Your task to perform on an android device: Go to Wikipedia Image 0: 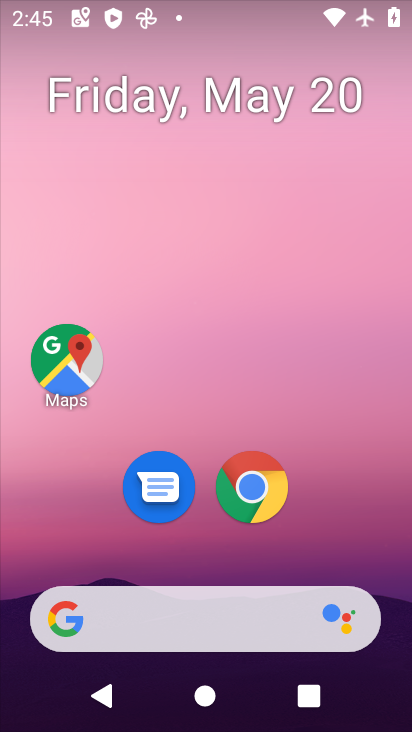
Step 0: click (257, 486)
Your task to perform on an android device: Go to Wikipedia Image 1: 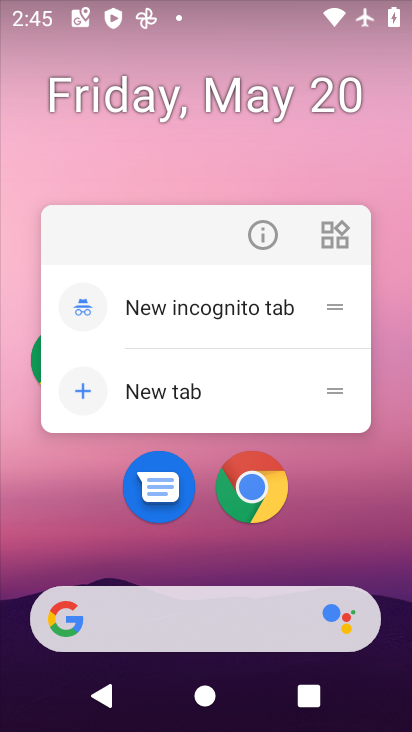
Step 1: click (257, 486)
Your task to perform on an android device: Go to Wikipedia Image 2: 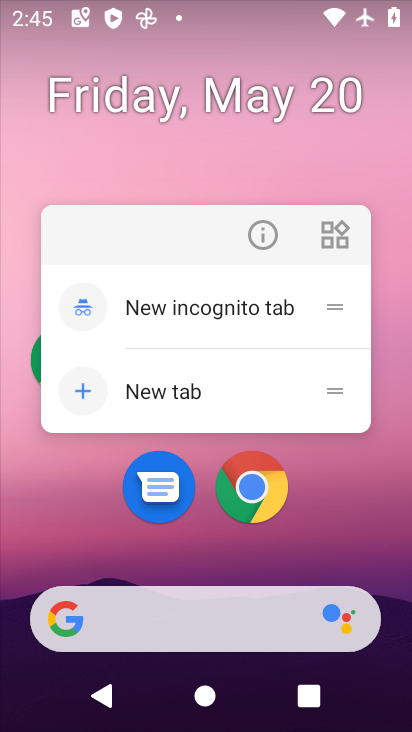
Step 2: click (257, 486)
Your task to perform on an android device: Go to Wikipedia Image 3: 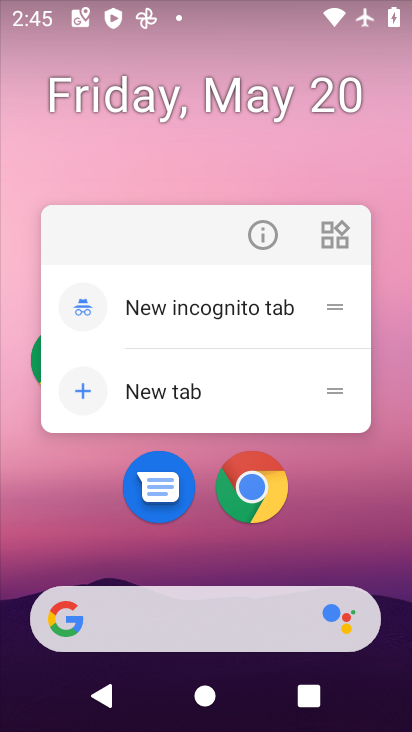
Step 3: click (257, 486)
Your task to perform on an android device: Go to Wikipedia Image 4: 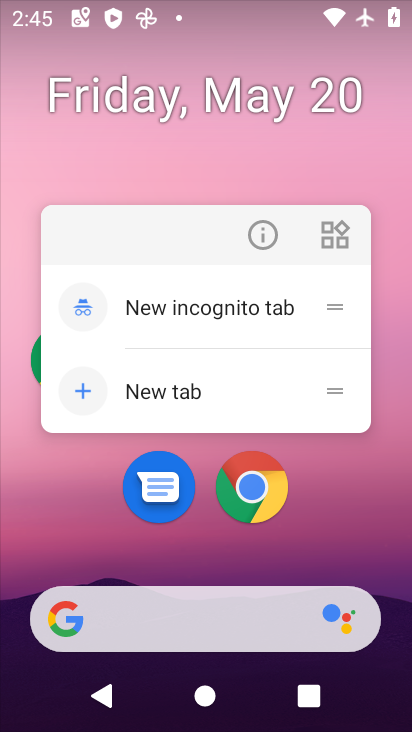
Step 4: click (257, 486)
Your task to perform on an android device: Go to Wikipedia Image 5: 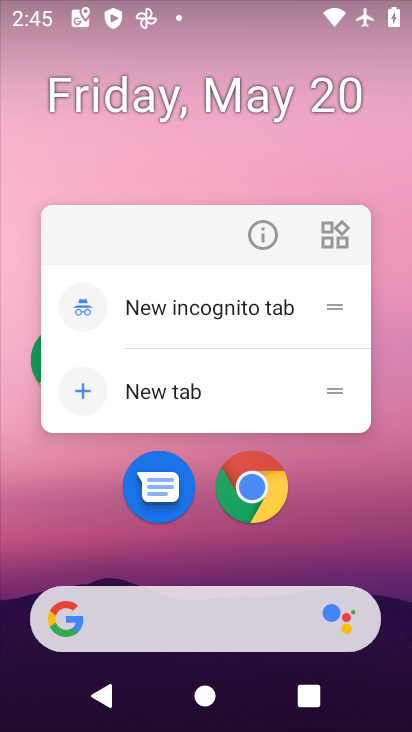
Step 5: click (257, 486)
Your task to perform on an android device: Go to Wikipedia Image 6: 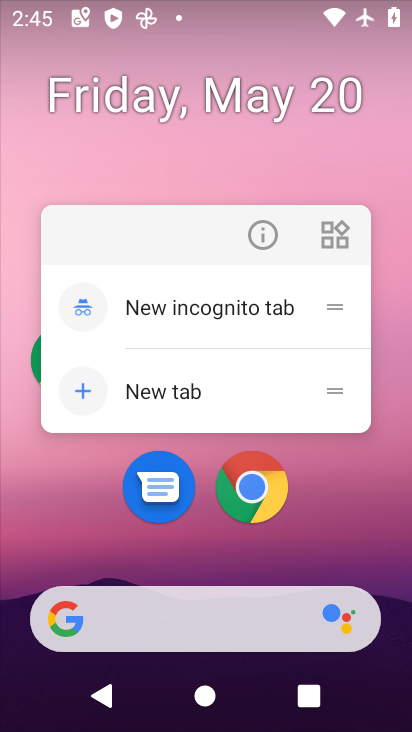
Step 6: click (257, 486)
Your task to perform on an android device: Go to Wikipedia Image 7: 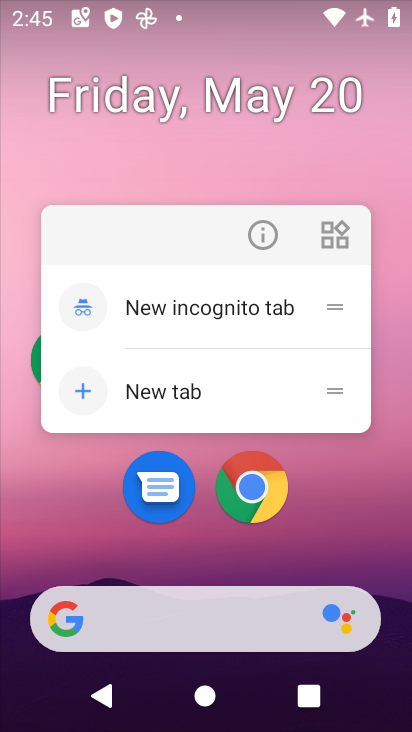
Step 7: click (257, 486)
Your task to perform on an android device: Go to Wikipedia Image 8: 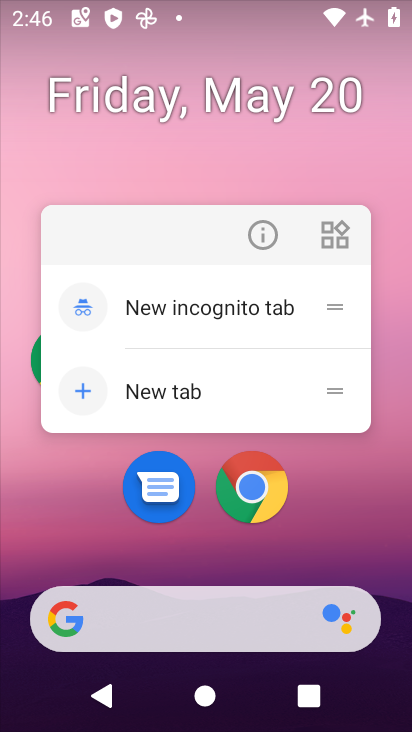
Step 8: drag from (328, 536) to (366, 36)
Your task to perform on an android device: Go to Wikipedia Image 9: 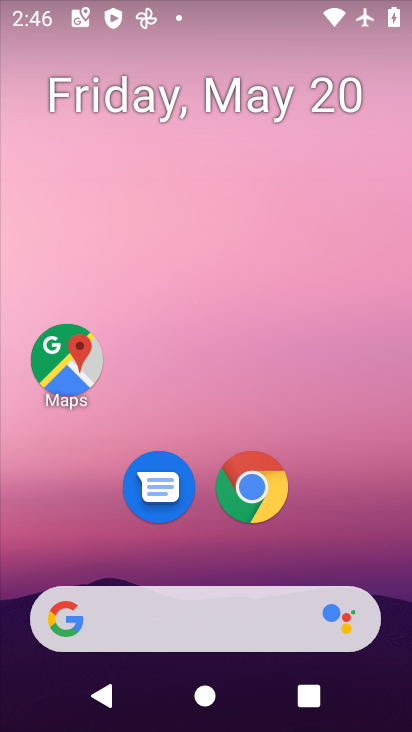
Step 9: drag from (335, 462) to (344, 21)
Your task to perform on an android device: Go to Wikipedia Image 10: 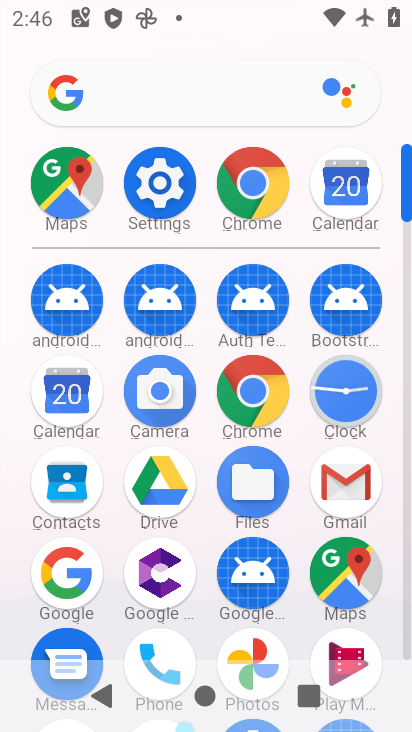
Step 10: click (273, 171)
Your task to perform on an android device: Go to Wikipedia Image 11: 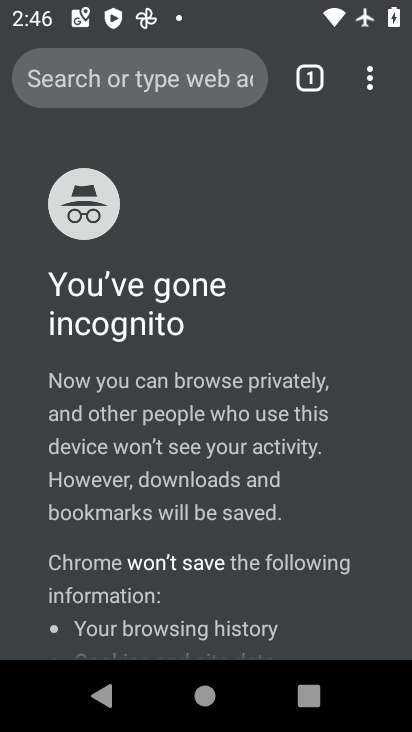
Step 11: click (142, 90)
Your task to perform on an android device: Go to Wikipedia Image 12: 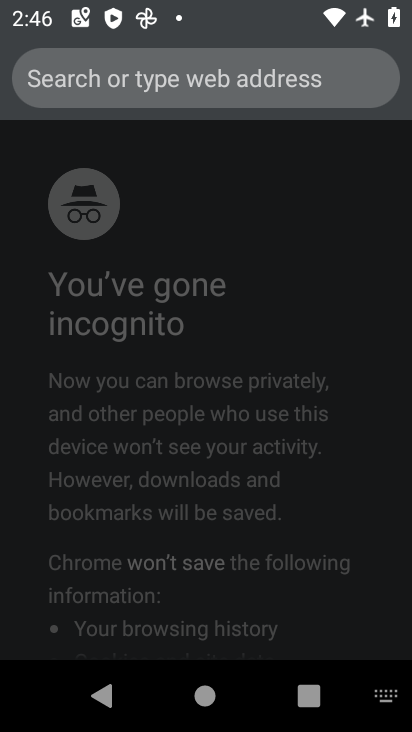
Step 12: type "wikipedia"
Your task to perform on an android device: Go to Wikipedia Image 13: 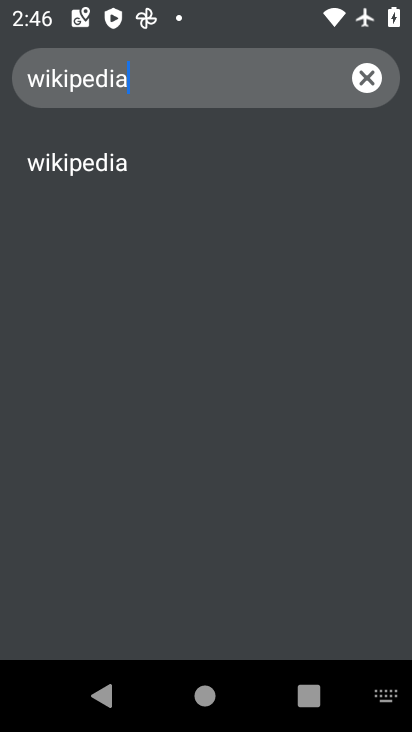
Step 13: click (95, 165)
Your task to perform on an android device: Go to Wikipedia Image 14: 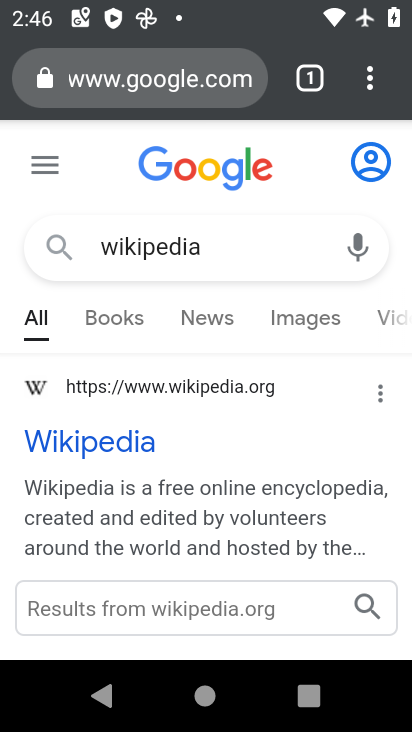
Step 14: click (115, 426)
Your task to perform on an android device: Go to Wikipedia Image 15: 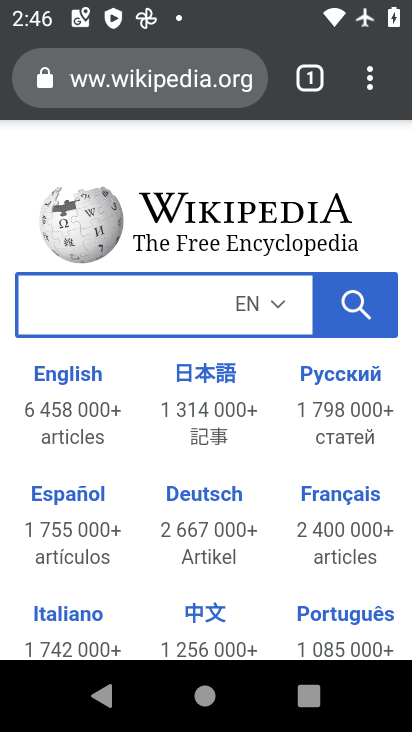
Step 15: task complete